Your task to perform on an android device: Open notification settings Image 0: 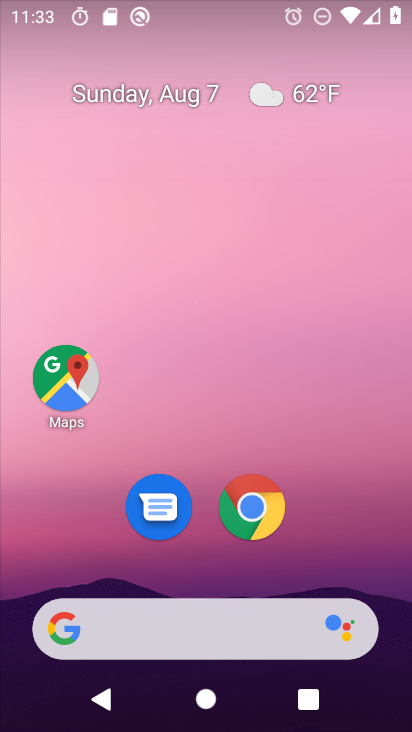
Step 0: drag from (356, 551) to (262, 108)
Your task to perform on an android device: Open notification settings Image 1: 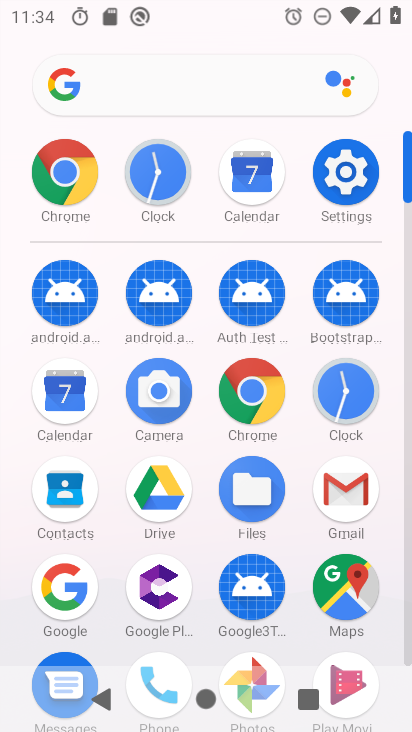
Step 1: click (349, 172)
Your task to perform on an android device: Open notification settings Image 2: 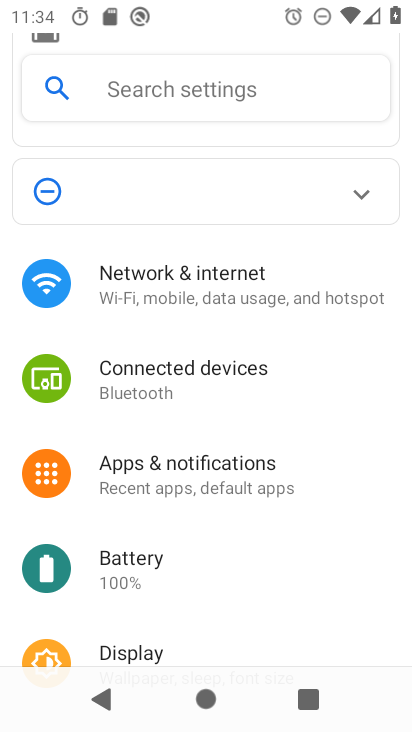
Step 2: click (204, 466)
Your task to perform on an android device: Open notification settings Image 3: 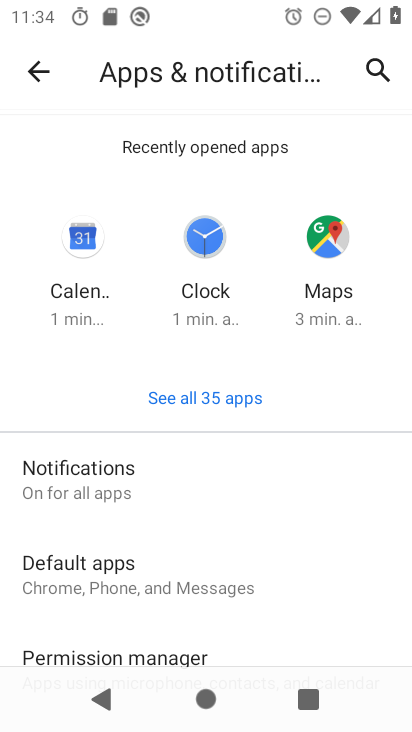
Step 3: click (108, 491)
Your task to perform on an android device: Open notification settings Image 4: 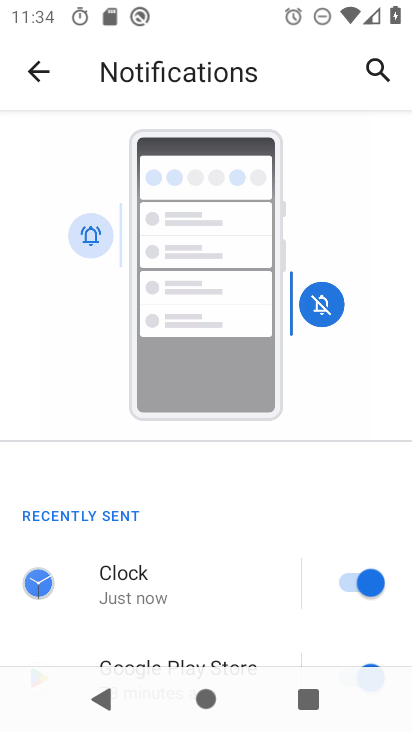
Step 4: task complete